Your task to perform on an android device: change timer sound Image 0: 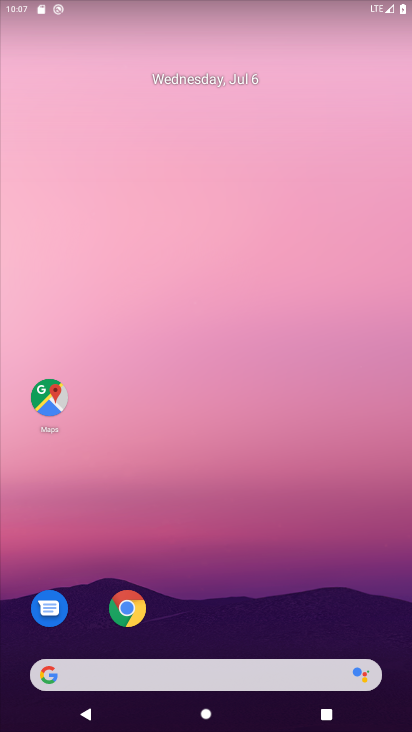
Step 0: drag from (198, 566) to (395, 2)
Your task to perform on an android device: change timer sound Image 1: 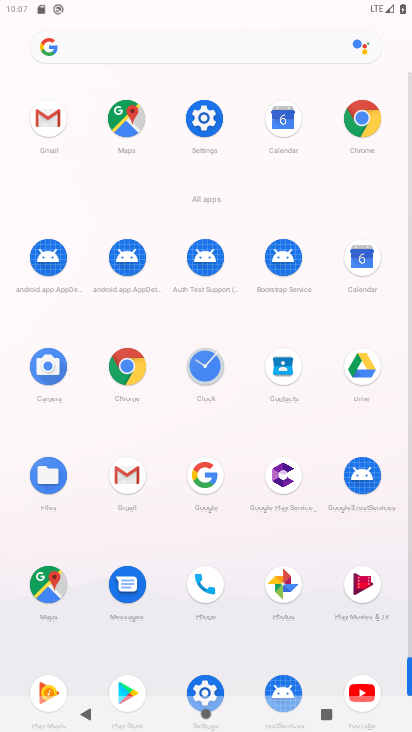
Step 1: drag from (177, 585) to (197, 502)
Your task to perform on an android device: change timer sound Image 2: 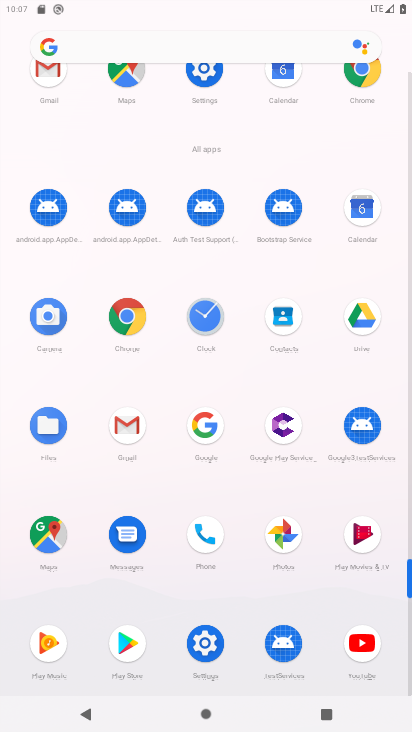
Step 2: click (207, 314)
Your task to perform on an android device: change timer sound Image 3: 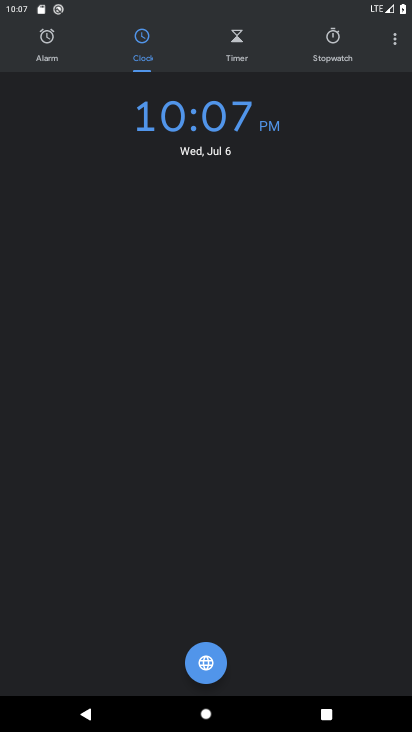
Step 3: click (394, 40)
Your task to perform on an android device: change timer sound Image 4: 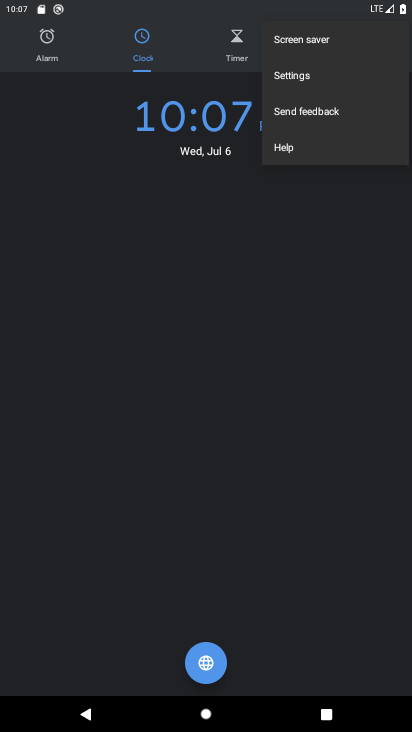
Step 4: click (285, 76)
Your task to perform on an android device: change timer sound Image 5: 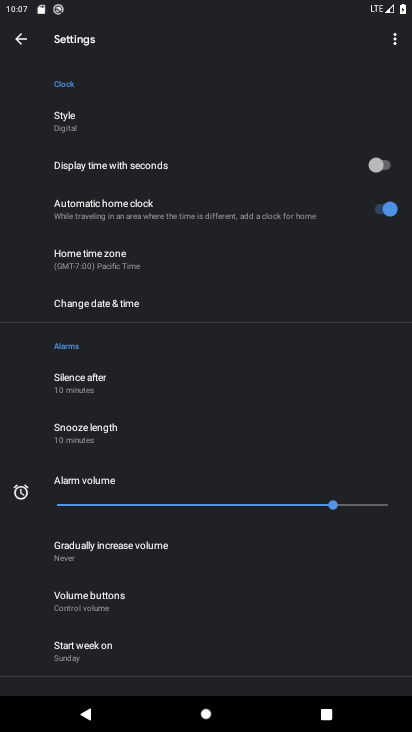
Step 5: drag from (158, 284) to (167, 208)
Your task to perform on an android device: change timer sound Image 6: 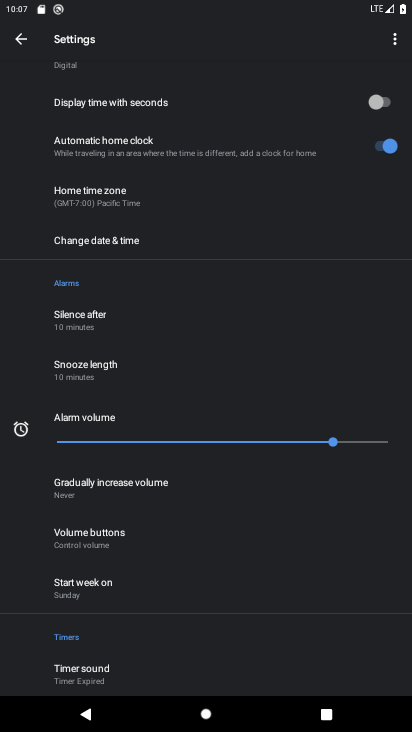
Step 6: drag from (135, 543) to (164, 218)
Your task to perform on an android device: change timer sound Image 7: 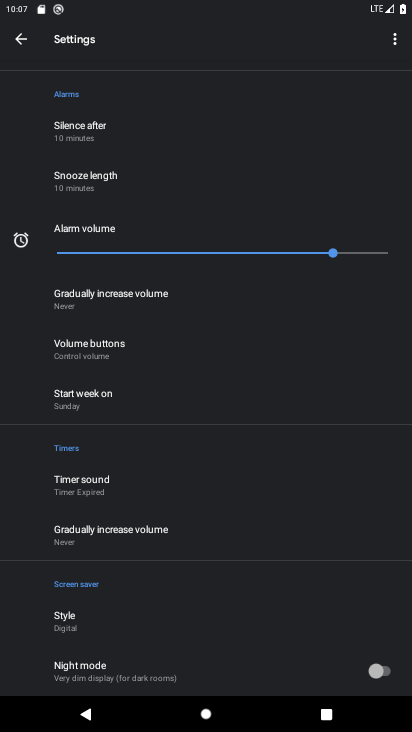
Step 7: click (98, 485)
Your task to perform on an android device: change timer sound Image 8: 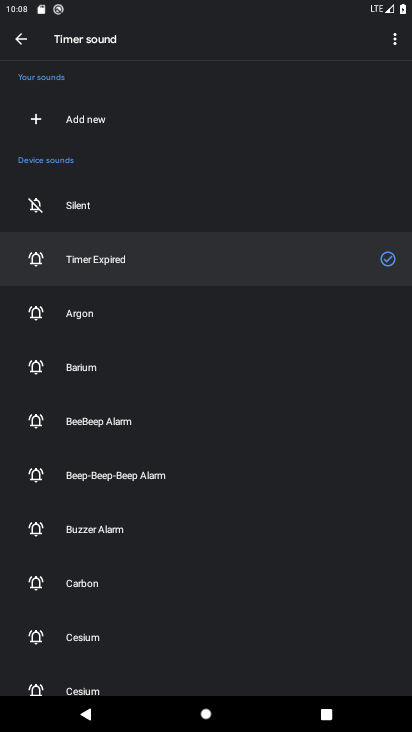
Step 8: click (90, 309)
Your task to perform on an android device: change timer sound Image 9: 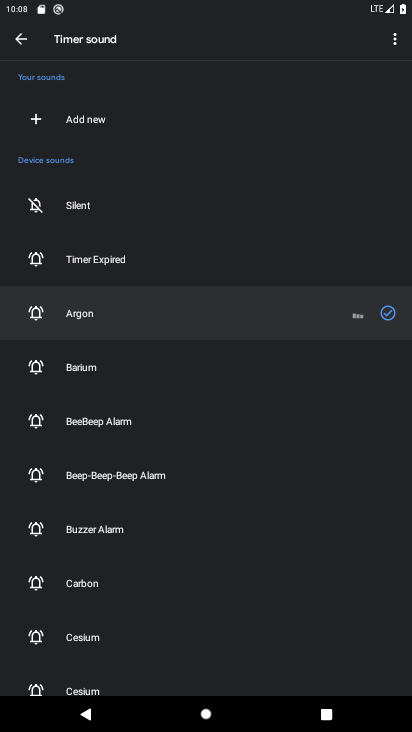
Step 9: task complete